Your task to perform on an android device: turn on sleep mode Image 0: 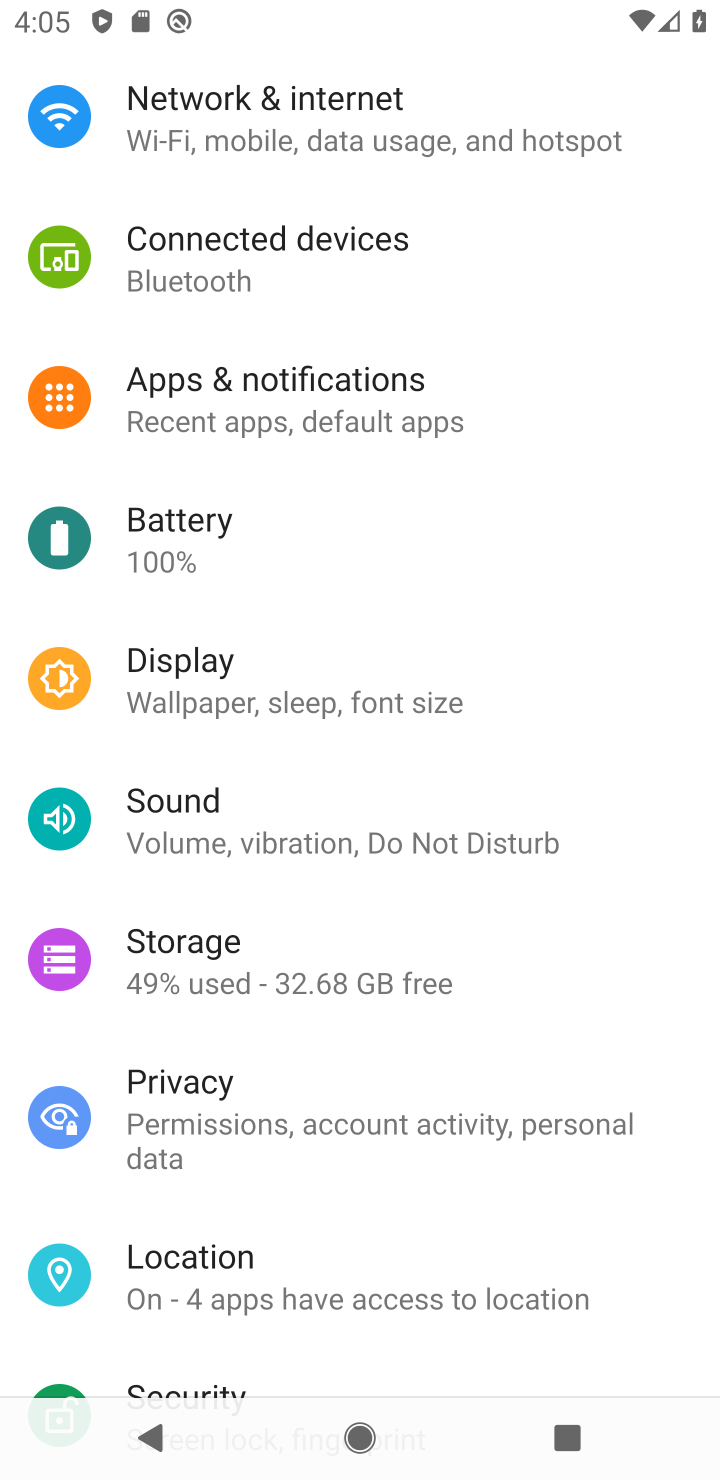
Step 0: click (309, 692)
Your task to perform on an android device: turn on sleep mode Image 1: 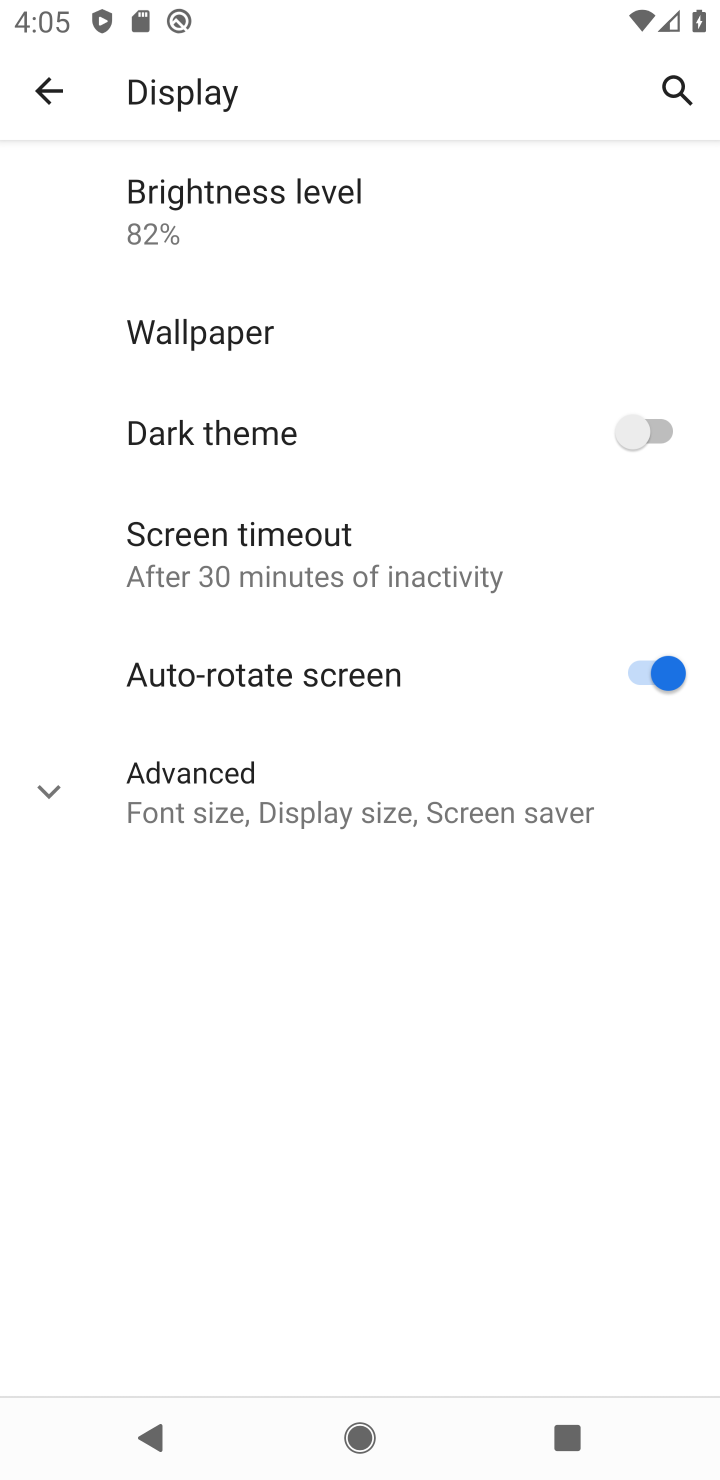
Step 1: click (667, 420)
Your task to perform on an android device: turn on sleep mode Image 2: 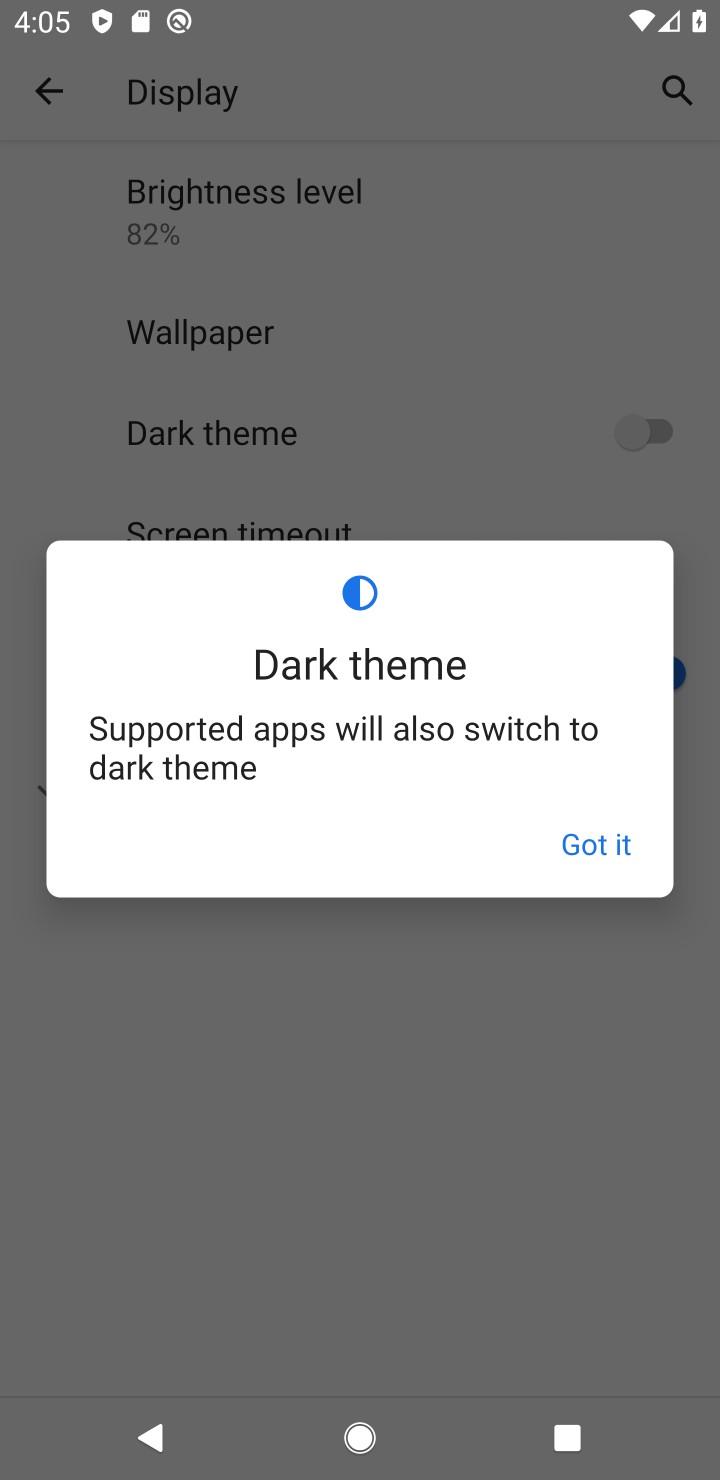
Step 2: click (605, 813)
Your task to perform on an android device: turn on sleep mode Image 3: 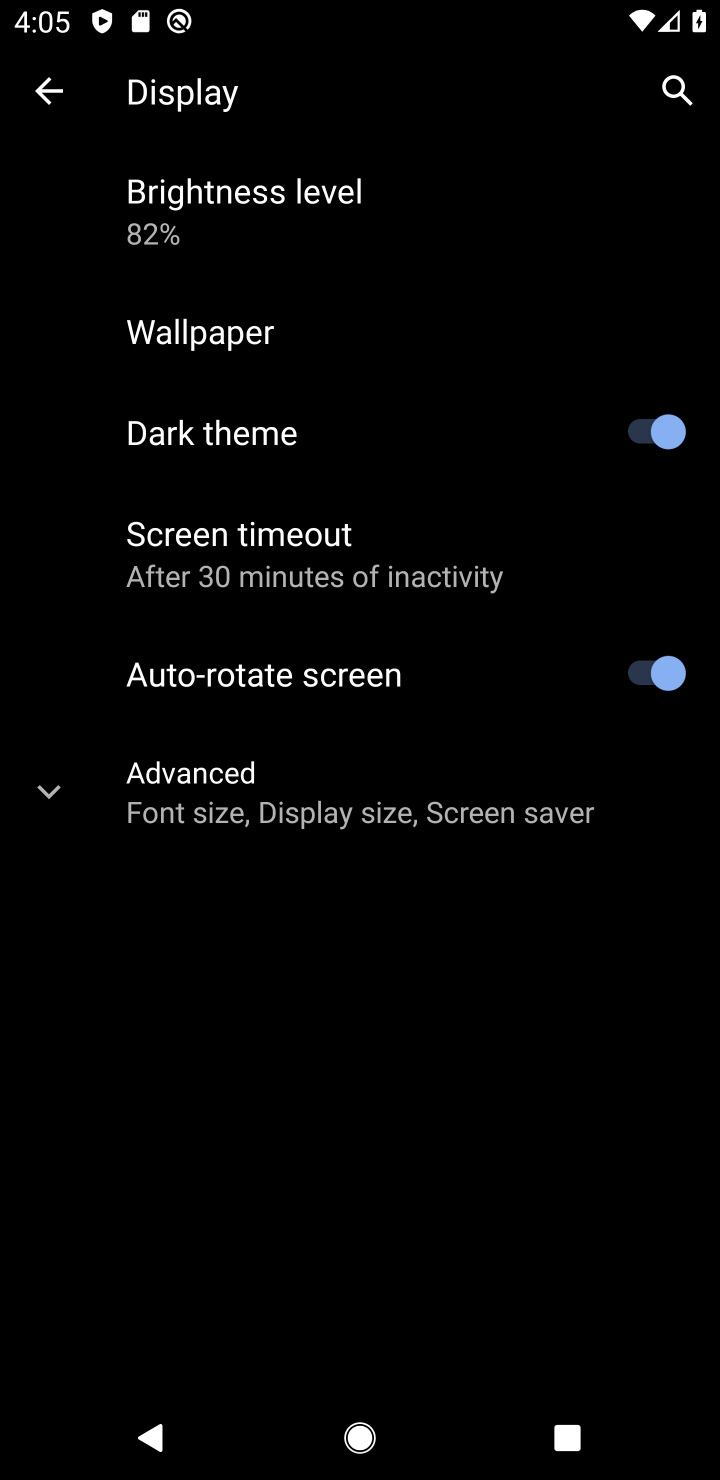
Step 3: task complete